Your task to perform on an android device: Open settings Image 0: 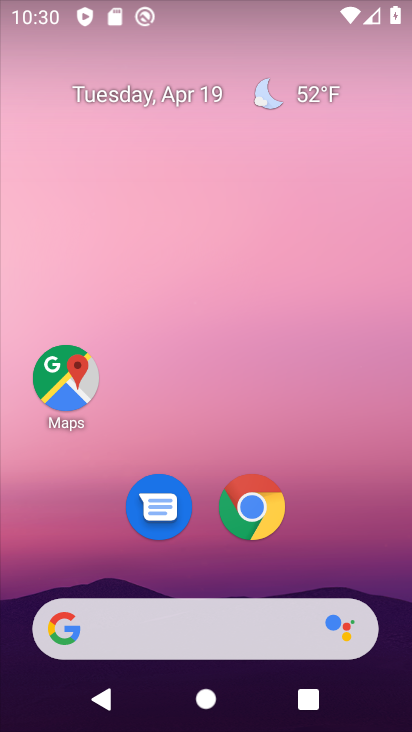
Step 0: drag from (347, 426) to (344, 86)
Your task to perform on an android device: Open settings Image 1: 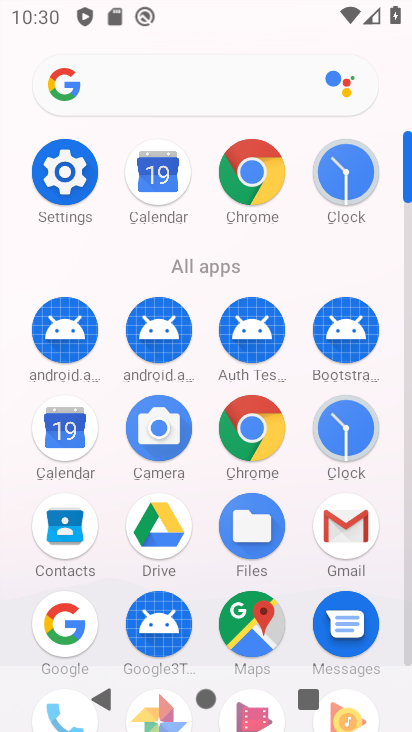
Step 1: click (92, 152)
Your task to perform on an android device: Open settings Image 2: 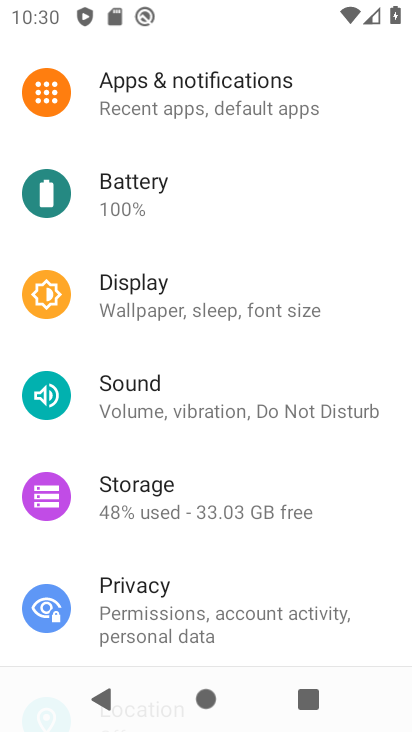
Step 2: task complete